Your task to perform on an android device: change the clock style Image 0: 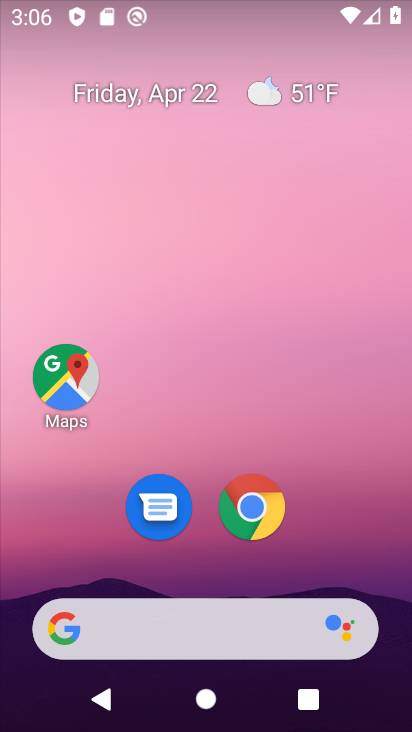
Step 0: drag from (218, 574) to (311, 519)
Your task to perform on an android device: change the clock style Image 1: 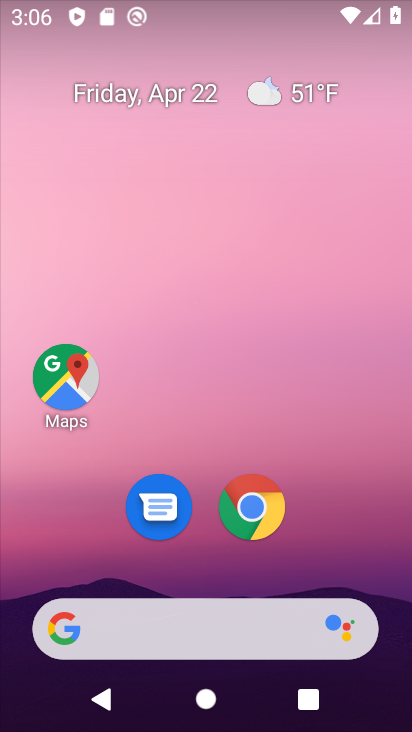
Step 1: drag from (239, 591) to (168, 30)
Your task to perform on an android device: change the clock style Image 2: 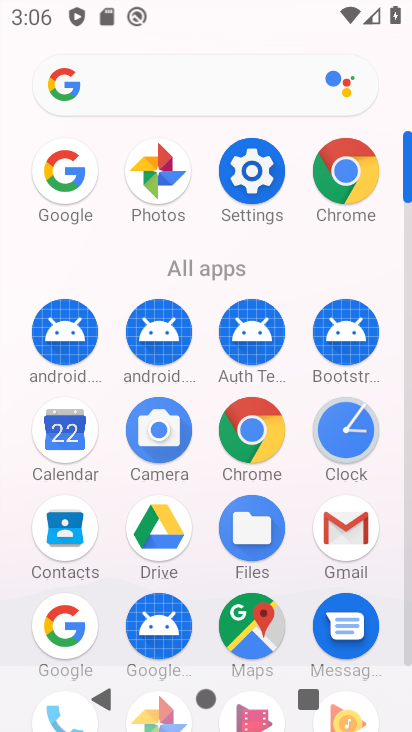
Step 2: click (353, 426)
Your task to perform on an android device: change the clock style Image 3: 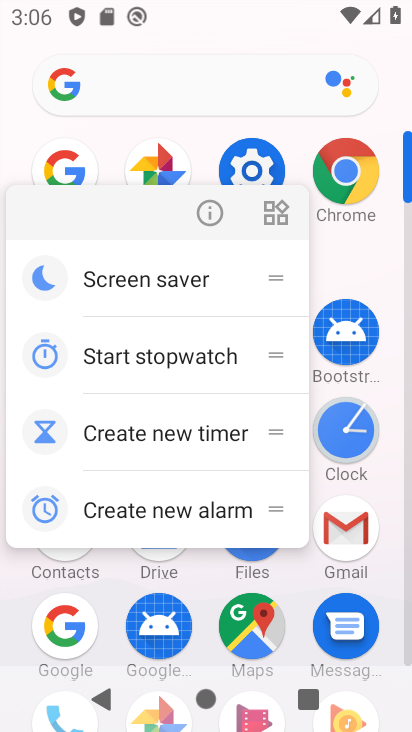
Step 3: click (355, 446)
Your task to perform on an android device: change the clock style Image 4: 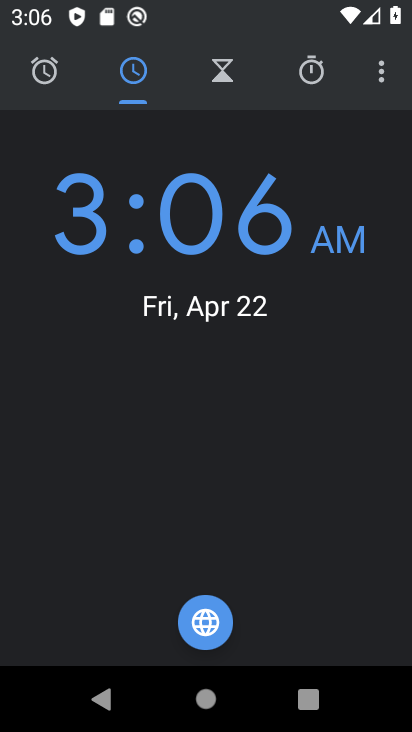
Step 4: click (376, 78)
Your task to perform on an android device: change the clock style Image 5: 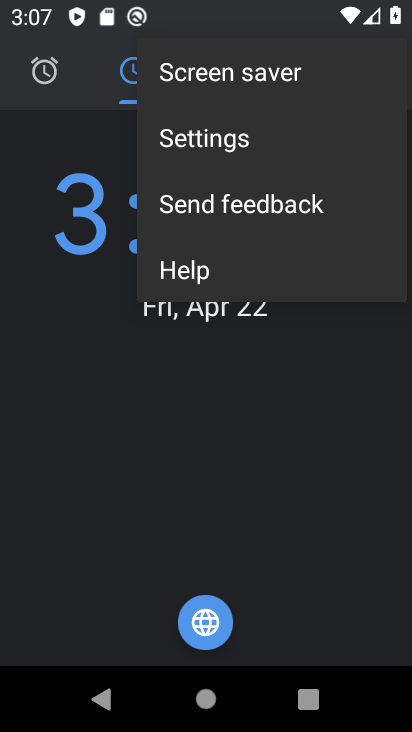
Step 5: click (203, 150)
Your task to perform on an android device: change the clock style Image 6: 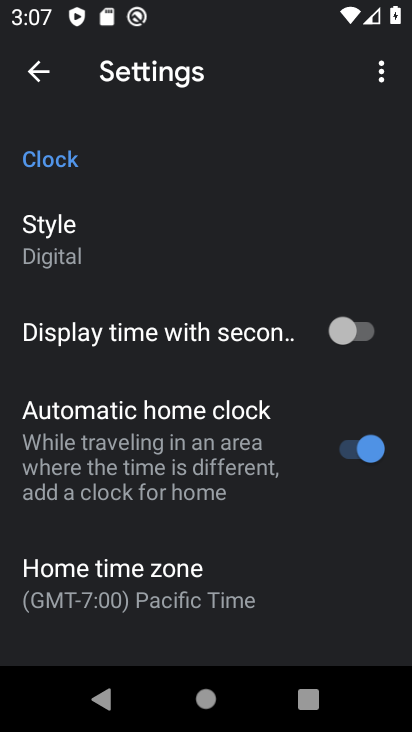
Step 6: click (74, 258)
Your task to perform on an android device: change the clock style Image 7: 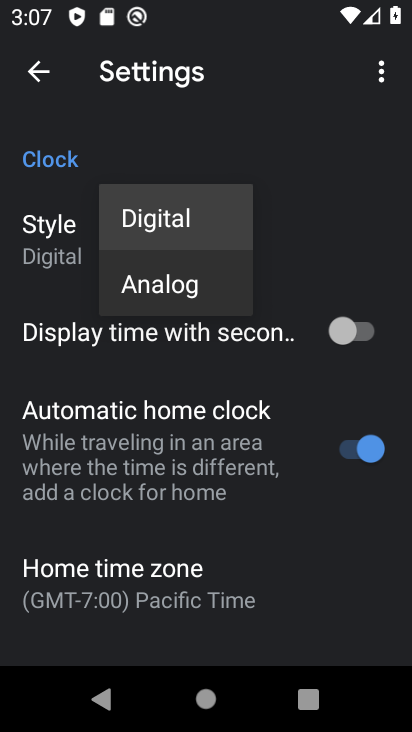
Step 7: click (184, 289)
Your task to perform on an android device: change the clock style Image 8: 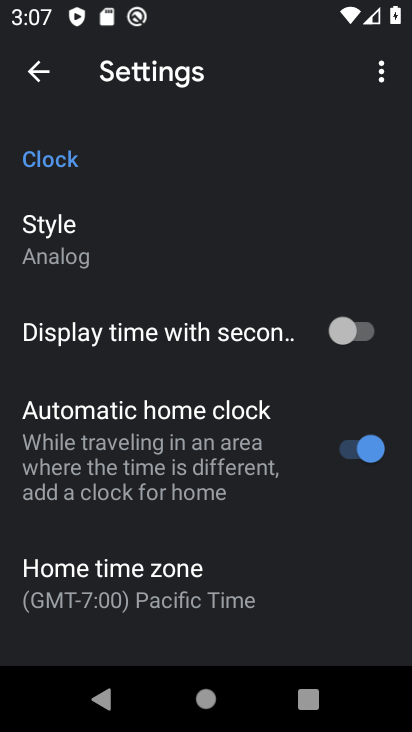
Step 8: task complete